Your task to perform on an android device: Open the stopwatch Image 0: 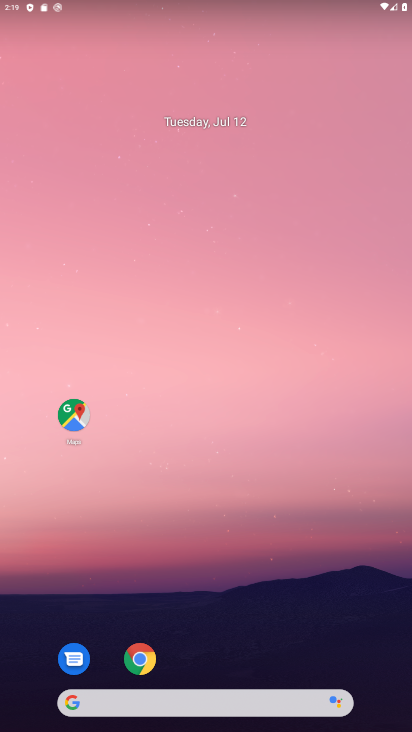
Step 0: drag from (248, 691) to (361, 268)
Your task to perform on an android device: Open the stopwatch Image 1: 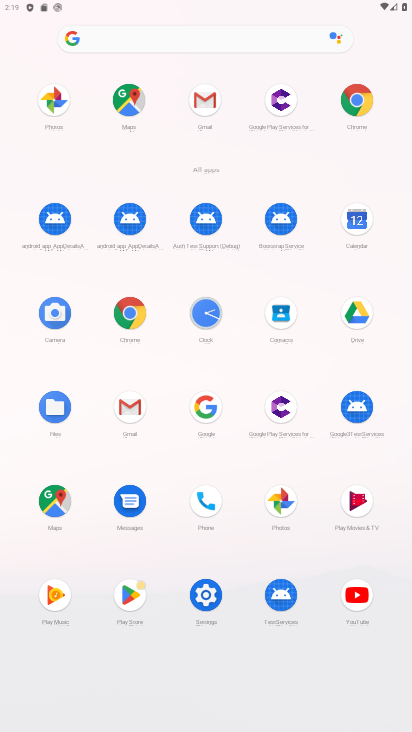
Step 1: click (213, 319)
Your task to perform on an android device: Open the stopwatch Image 2: 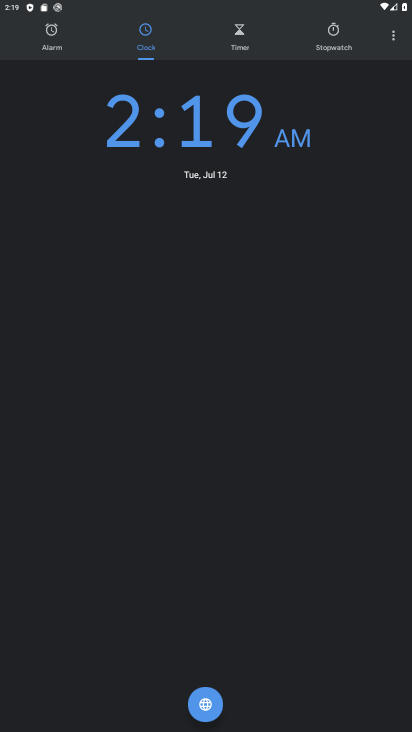
Step 2: click (343, 49)
Your task to perform on an android device: Open the stopwatch Image 3: 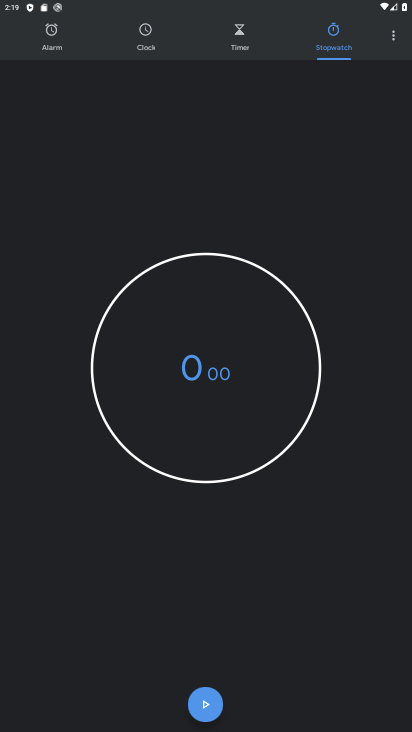
Step 3: task complete